Your task to perform on an android device: Go to accessibility settings Image 0: 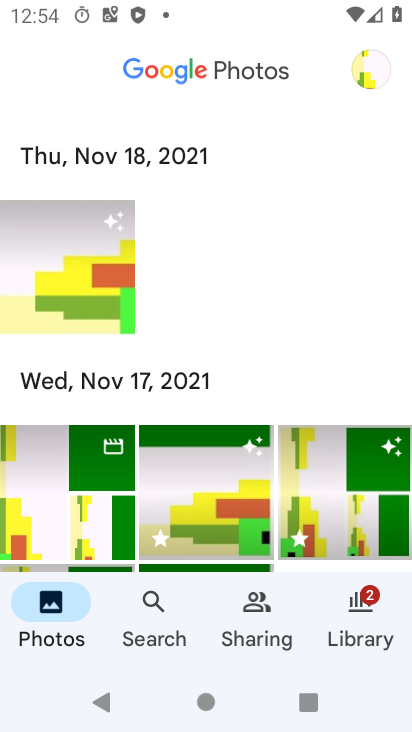
Step 0: press home button
Your task to perform on an android device: Go to accessibility settings Image 1: 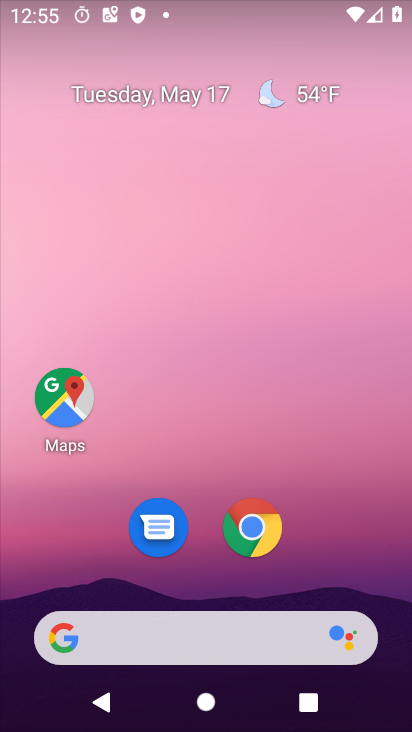
Step 1: drag from (251, 668) to (185, 219)
Your task to perform on an android device: Go to accessibility settings Image 2: 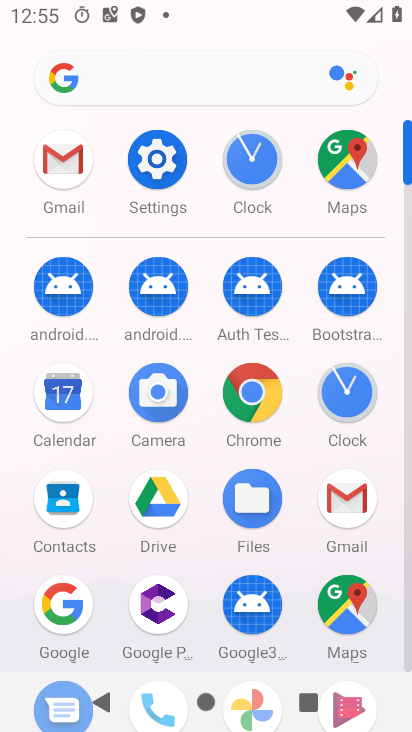
Step 2: click (161, 178)
Your task to perform on an android device: Go to accessibility settings Image 3: 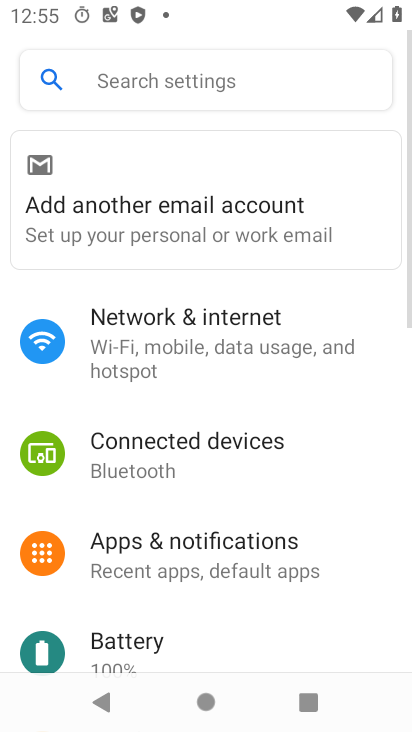
Step 3: click (153, 97)
Your task to perform on an android device: Go to accessibility settings Image 4: 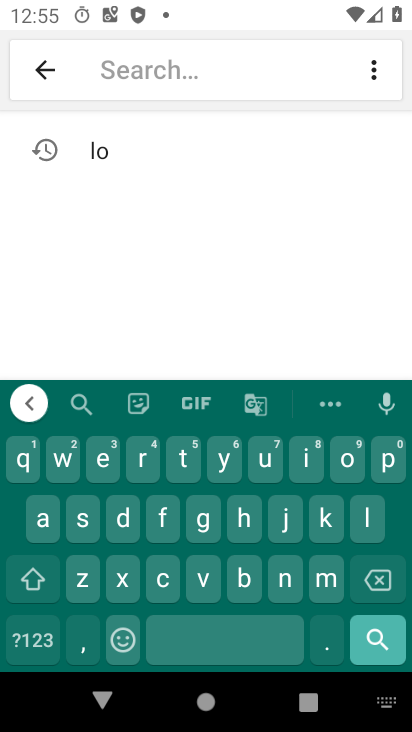
Step 4: click (39, 535)
Your task to perform on an android device: Go to accessibility settings Image 5: 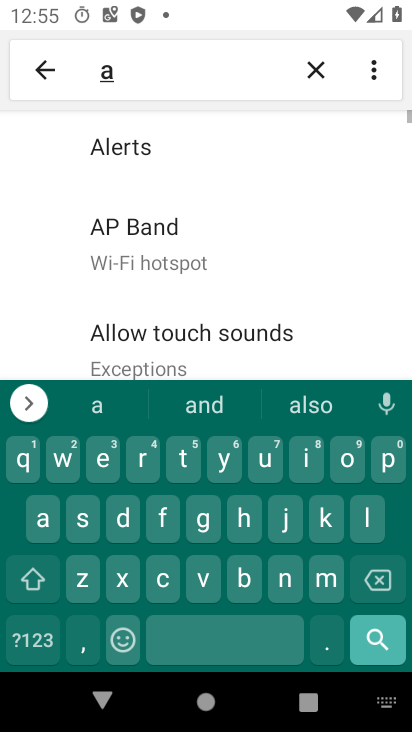
Step 5: click (160, 579)
Your task to perform on an android device: Go to accessibility settings Image 6: 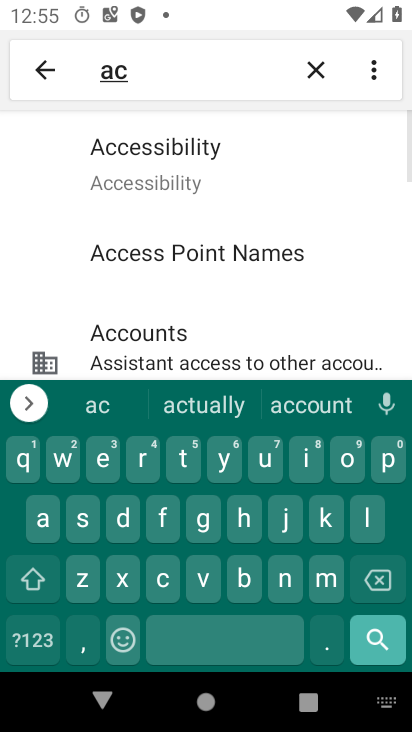
Step 6: click (173, 178)
Your task to perform on an android device: Go to accessibility settings Image 7: 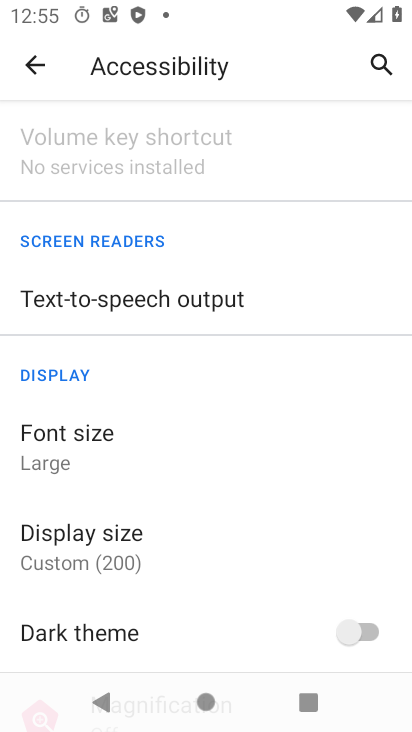
Step 7: task complete